Your task to perform on an android device: See recent photos Image 0: 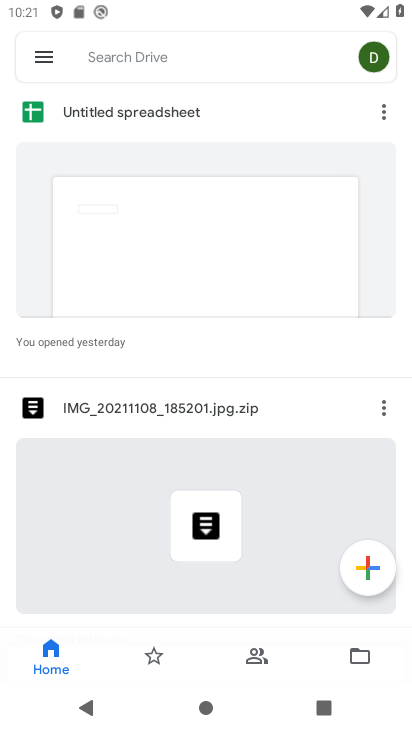
Step 0: press home button
Your task to perform on an android device: See recent photos Image 1: 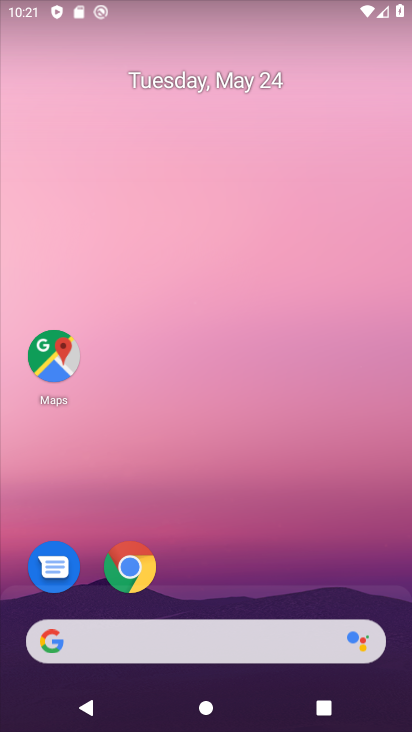
Step 1: drag from (383, 549) to (359, 271)
Your task to perform on an android device: See recent photos Image 2: 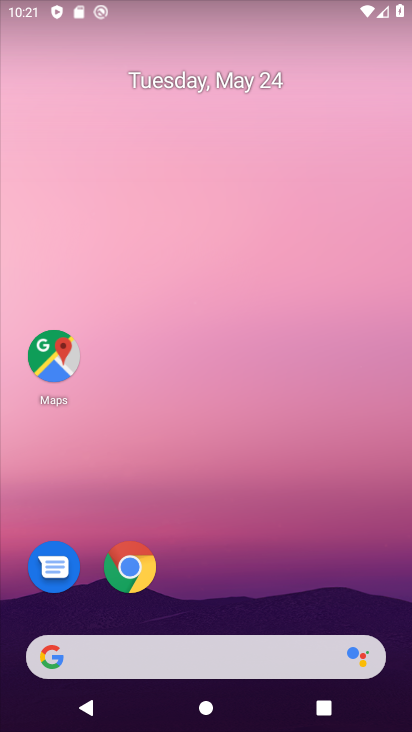
Step 2: drag from (398, 689) to (384, 308)
Your task to perform on an android device: See recent photos Image 3: 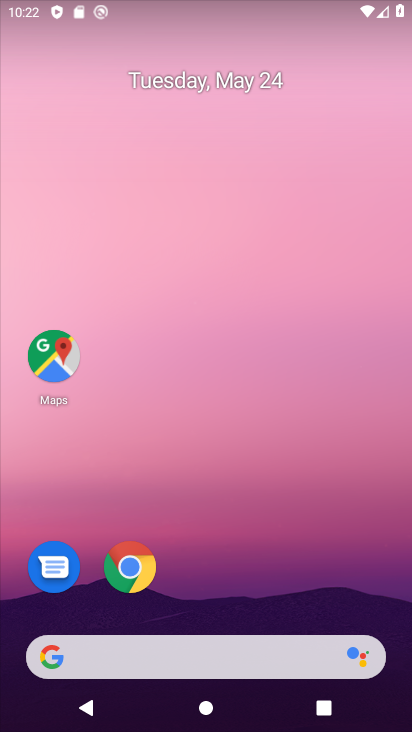
Step 3: drag from (394, 699) to (383, 282)
Your task to perform on an android device: See recent photos Image 4: 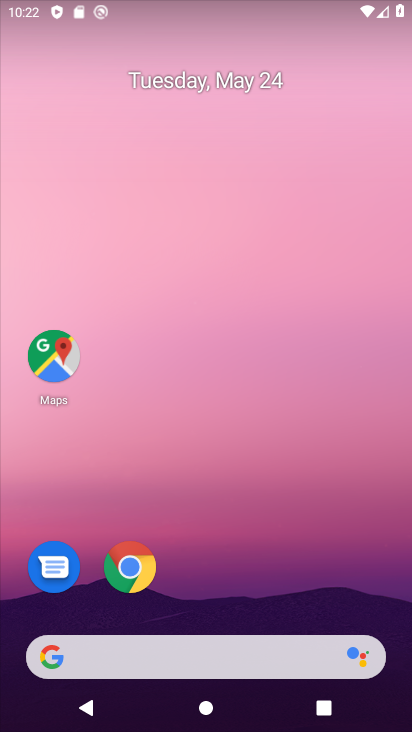
Step 4: drag from (399, 699) to (352, 267)
Your task to perform on an android device: See recent photos Image 5: 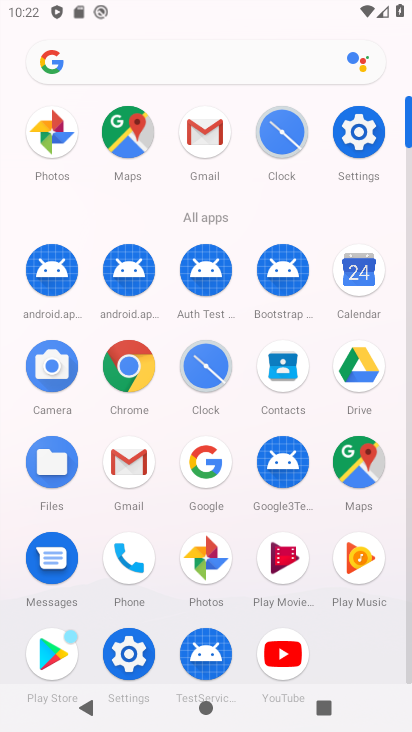
Step 5: click (199, 562)
Your task to perform on an android device: See recent photos Image 6: 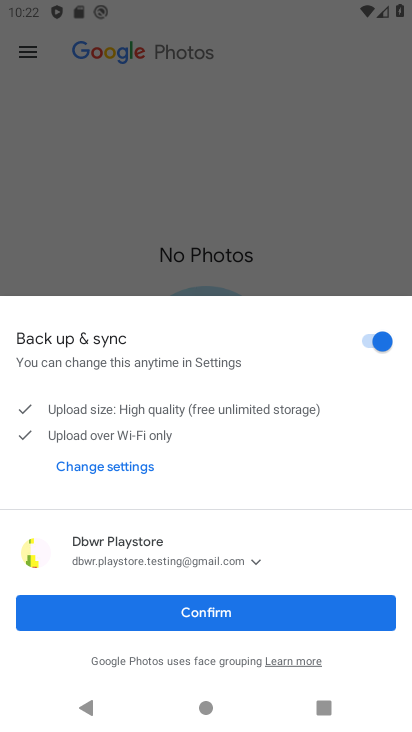
Step 6: click (277, 610)
Your task to perform on an android device: See recent photos Image 7: 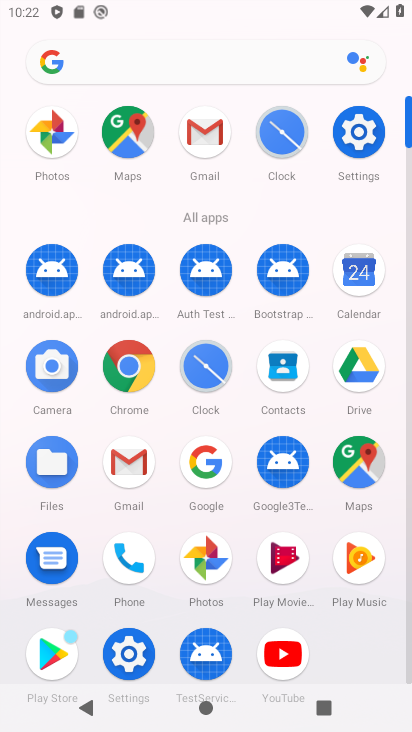
Step 7: click (215, 547)
Your task to perform on an android device: See recent photos Image 8: 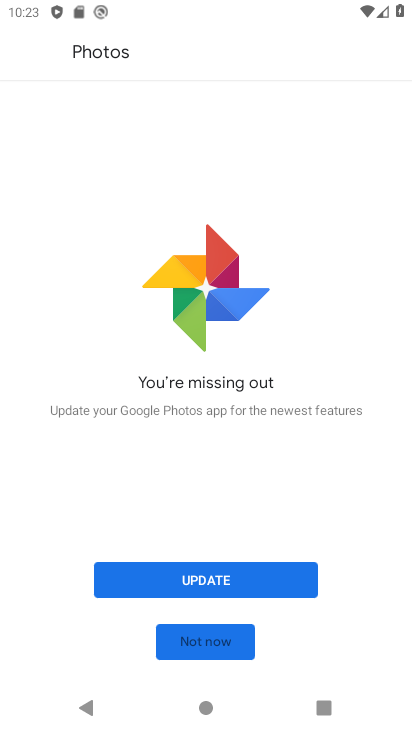
Step 8: click (238, 575)
Your task to perform on an android device: See recent photos Image 9: 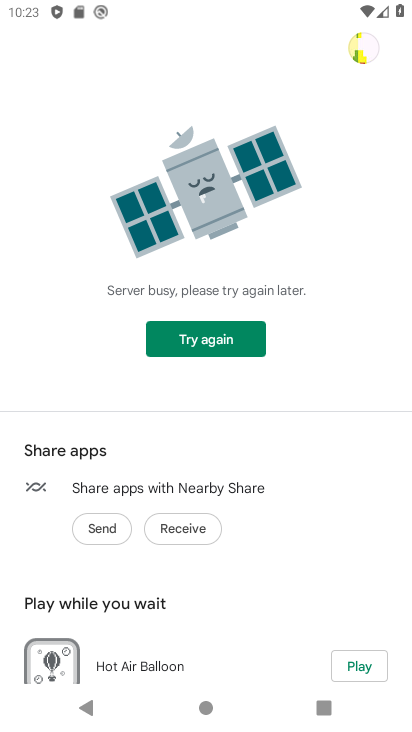
Step 9: task complete